Your task to perform on an android device: Go to notification settings Image 0: 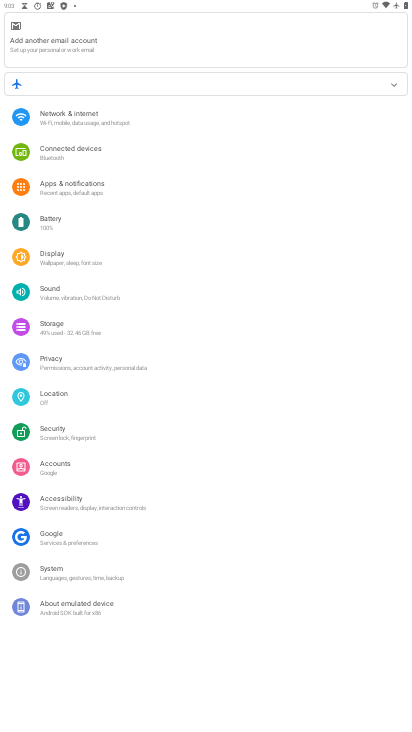
Step 0: drag from (169, 626) to (183, 32)
Your task to perform on an android device: Go to notification settings Image 1: 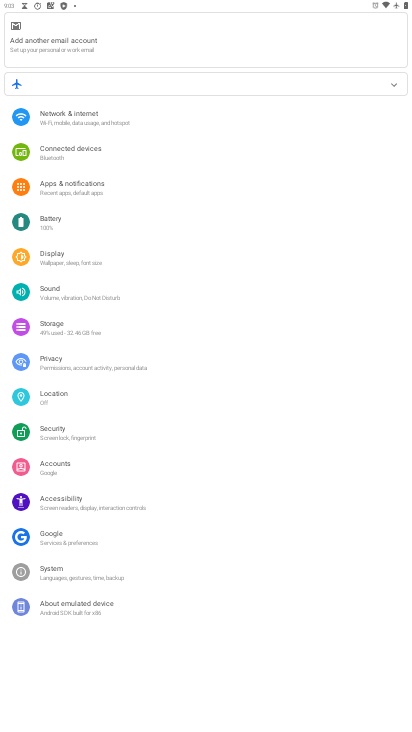
Step 1: click (94, 188)
Your task to perform on an android device: Go to notification settings Image 2: 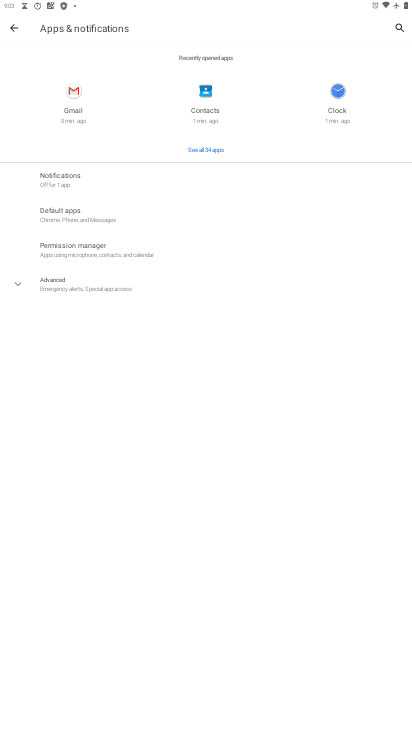
Step 2: click (94, 180)
Your task to perform on an android device: Go to notification settings Image 3: 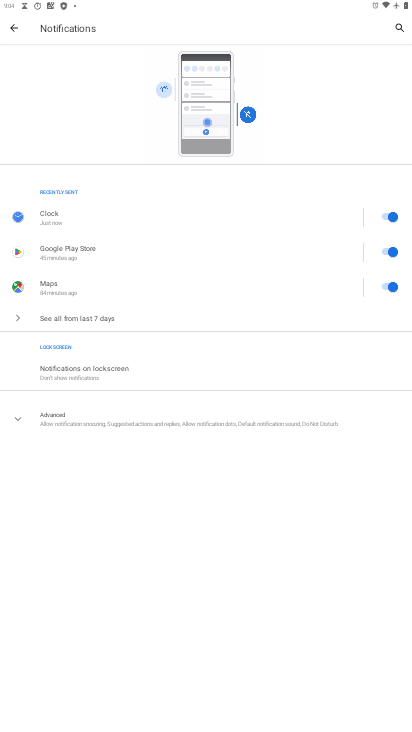
Step 3: drag from (221, 584) to (198, 214)
Your task to perform on an android device: Go to notification settings Image 4: 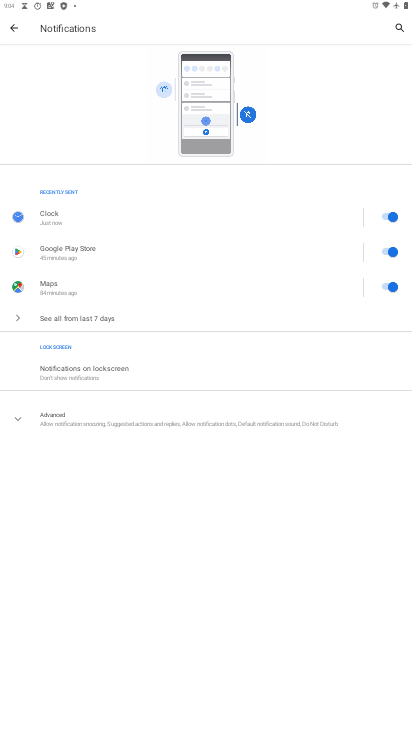
Step 4: click (76, 415)
Your task to perform on an android device: Go to notification settings Image 5: 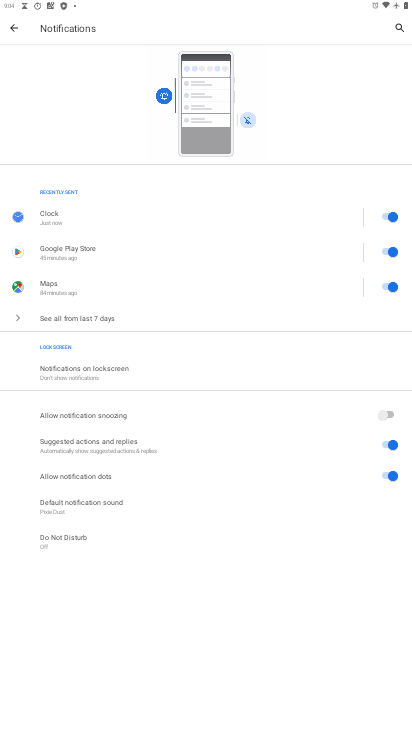
Step 5: task complete